Your task to perform on an android device: check data usage Image 0: 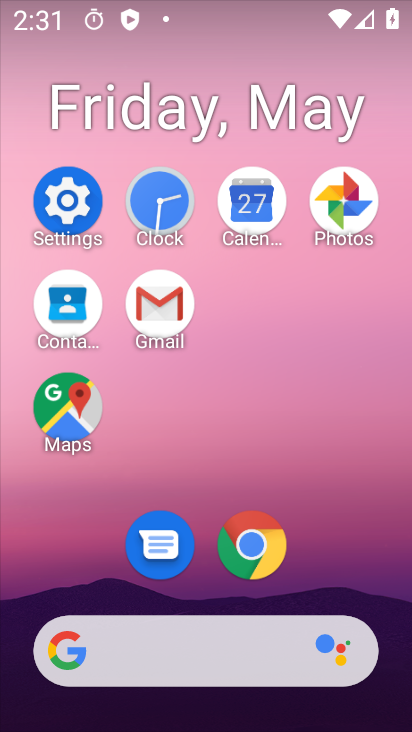
Step 0: click (79, 209)
Your task to perform on an android device: check data usage Image 1: 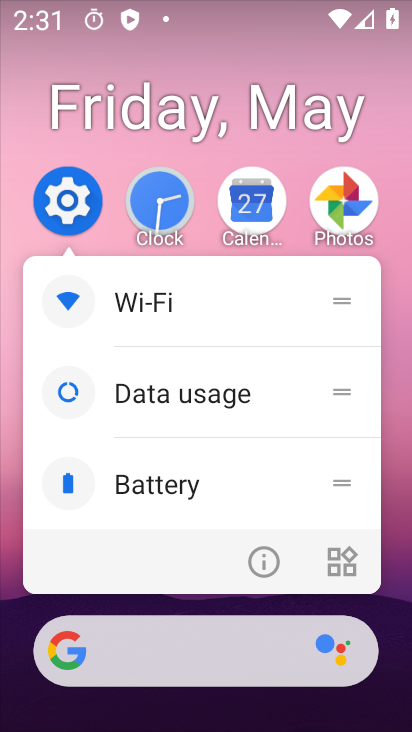
Step 1: click (65, 200)
Your task to perform on an android device: check data usage Image 2: 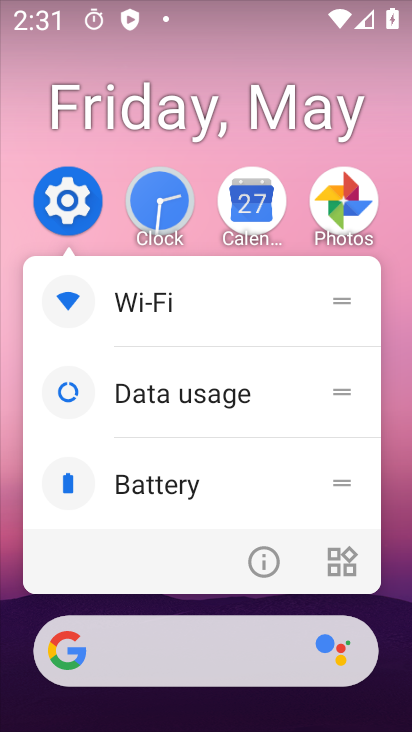
Step 2: click (83, 208)
Your task to perform on an android device: check data usage Image 3: 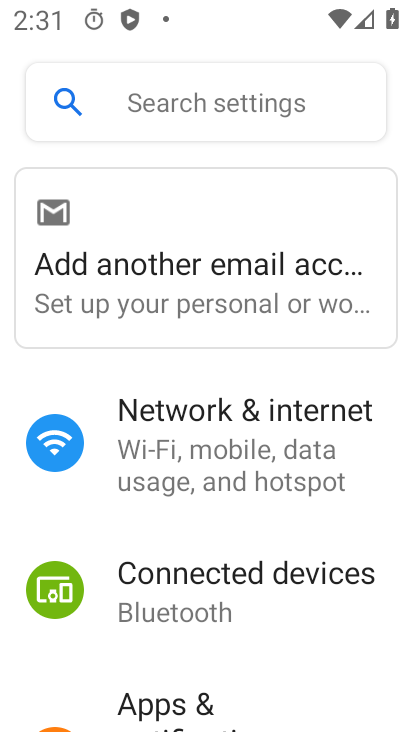
Step 3: click (204, 462)
Your task to perform on an android device: check data usage Image 4: 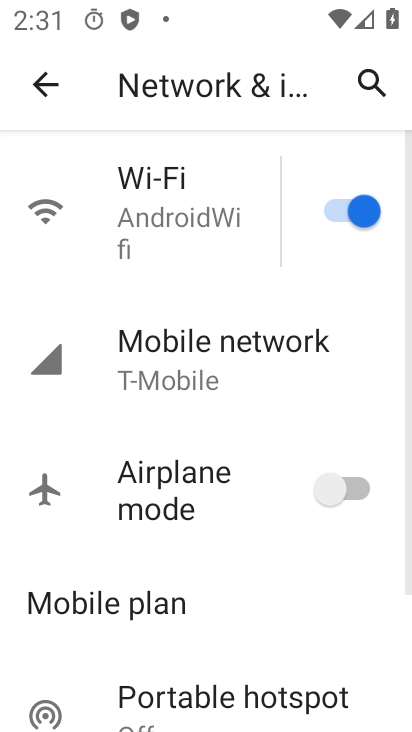
Step 4: click (196, 380)
Your task to perform on an android device: check data usage Image 5: 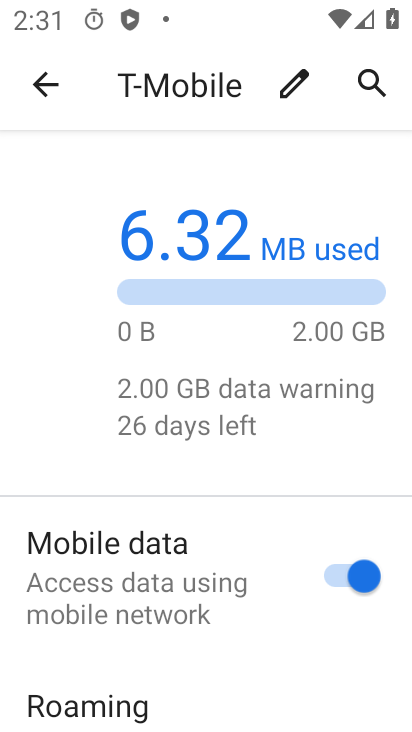
Step 5: task complete